Your task to perform on an android device: manage bookmarks in the chrome app Image 0: 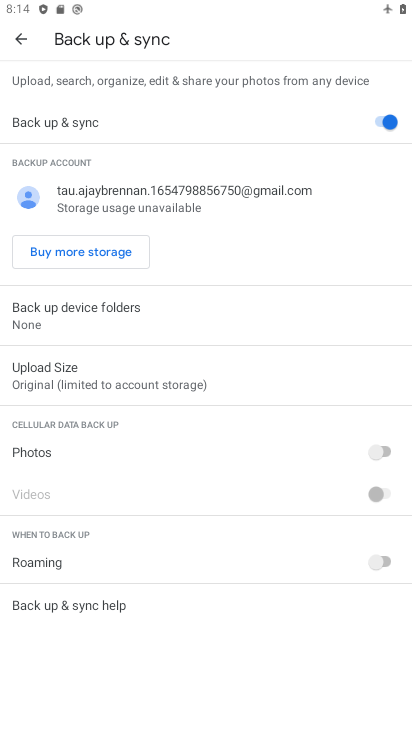
Step 0: press home button
Your task to perform on an android device: manage bookmarks in the chrome app Image 1: 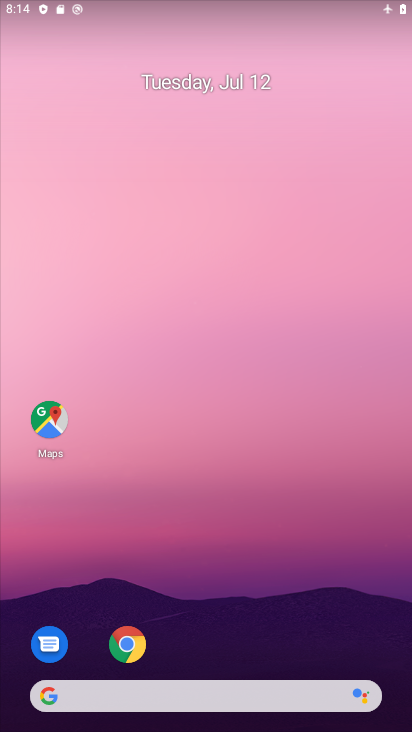
Step 1: click (128, 647)
Your task to perform on an android device: manage bookmarks in the chrome app Image 2: 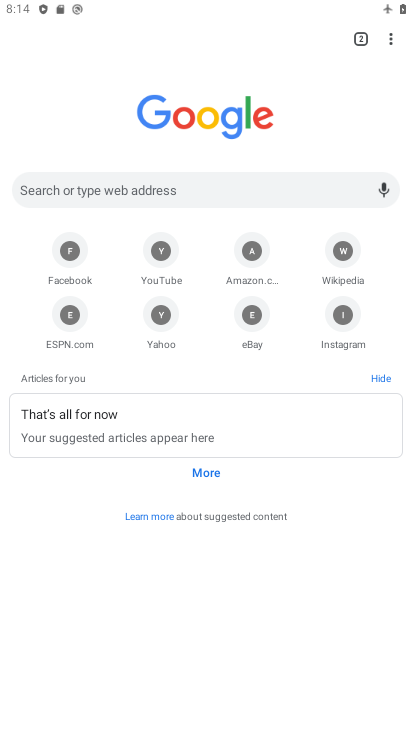
Step 2: click (387, 42)
Your task to perform on an android device: manage bookmarks in the chrome app Image 3: 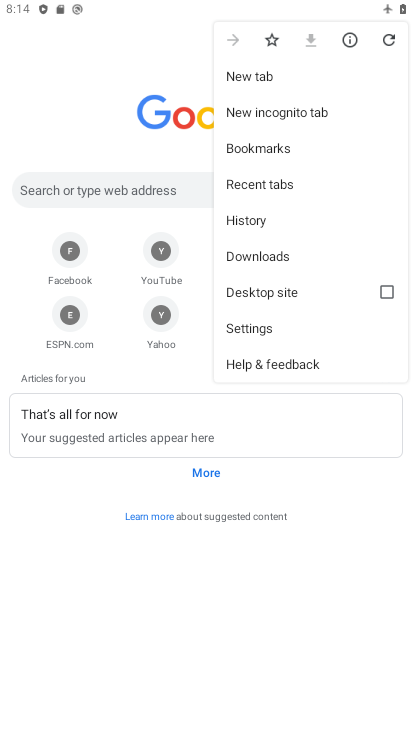
Step 3: click (290, 145)
Your task to perform on an android device: manage bookmarks in the chrome app Image 4: 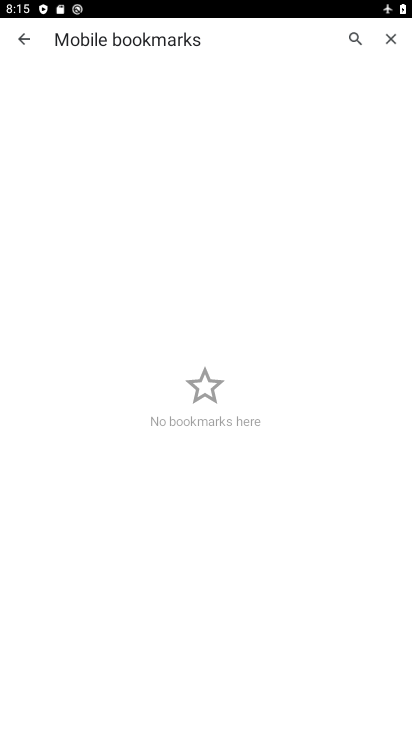
Step 4: task complete